Your task to perform on an android device: delete location history Image 0: 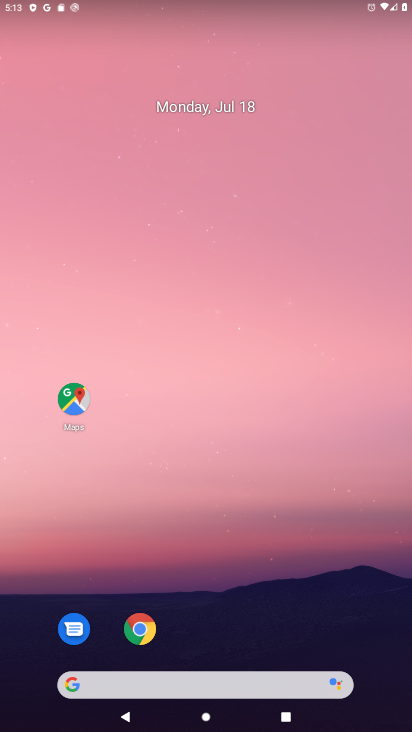
Step 0: drag from (288, 605) to (277, 54)
Your task to perform on an android device: delete location history Image 1: 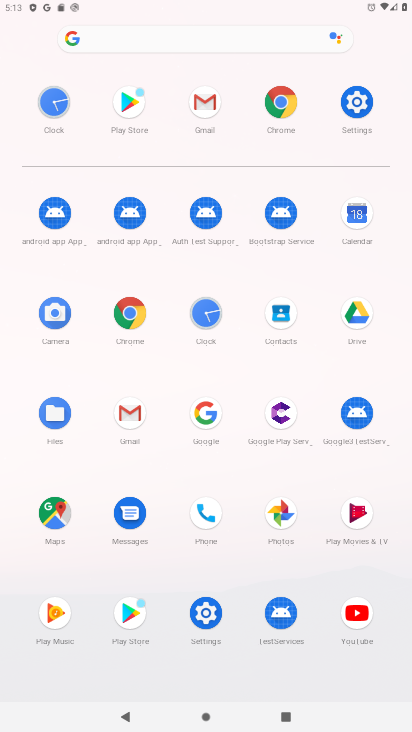
Step 1: click (347, 97)
Your task to perform on an android device: delete location history Image 2: 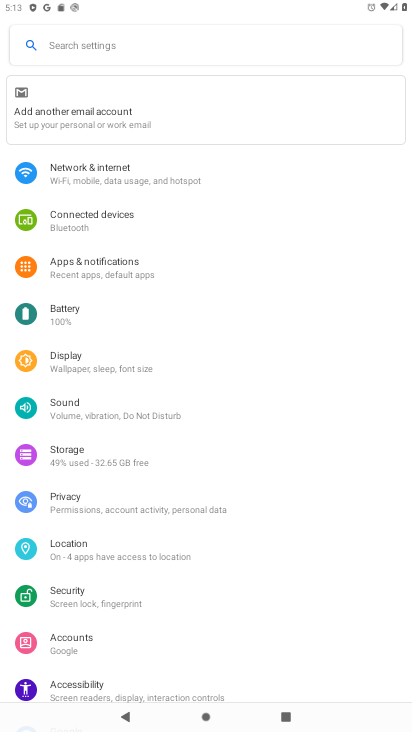
Step 2: press home button
Your task to perform on an android device: delete location history Image 3: 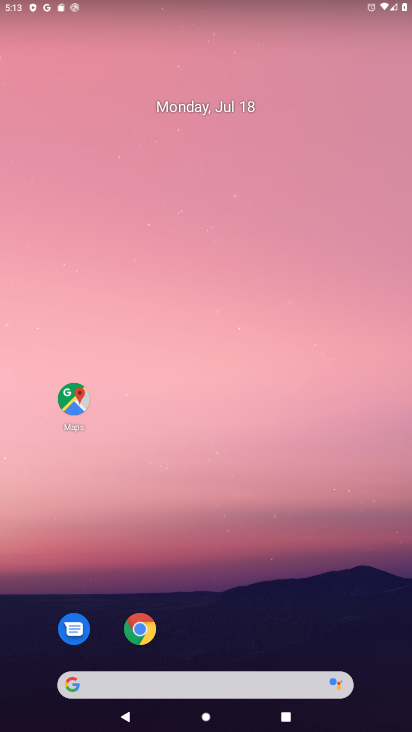
Step 3: click (73, 396)
Your task to perform on an android device: delete location history Image 4: 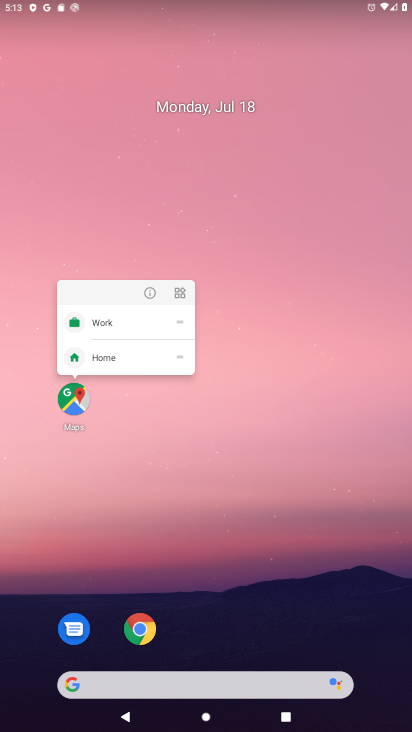
Step 4: click (66, 408)
Your task to perform on an android device: delete location history Image 5: 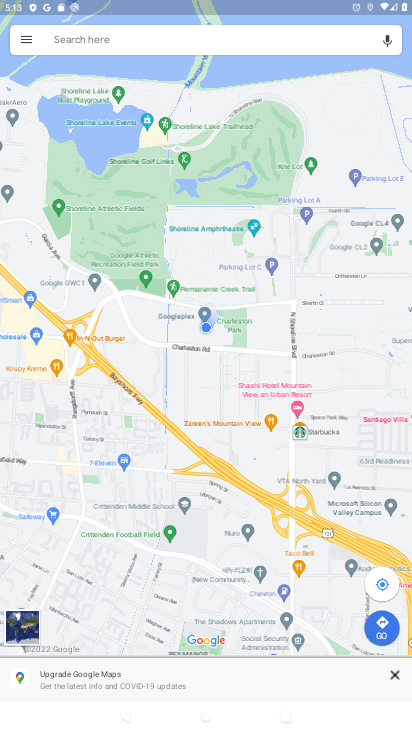
Step 5: click (20, 39)
Your task to perform on an android device: delete location history Image 6: 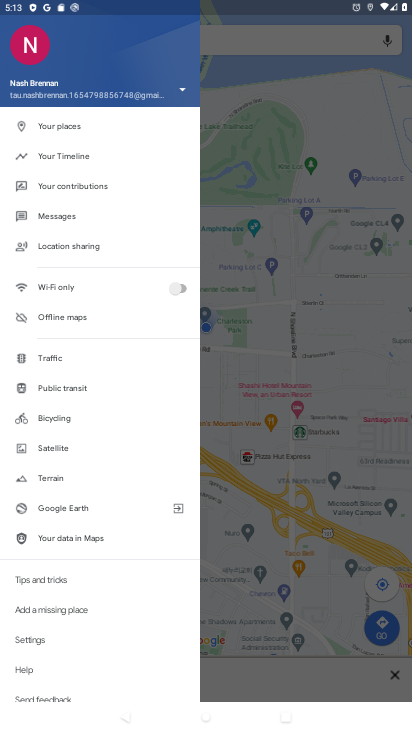
Step 6: click (44, 642)
Your task to perform on an android device: delete location history Image 7: 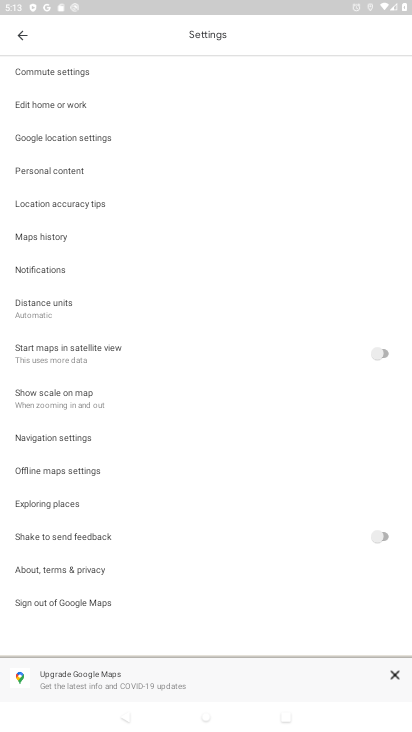
Step 7: click (42, 236)
Your task to perform on an android device: delete location history Image 8: 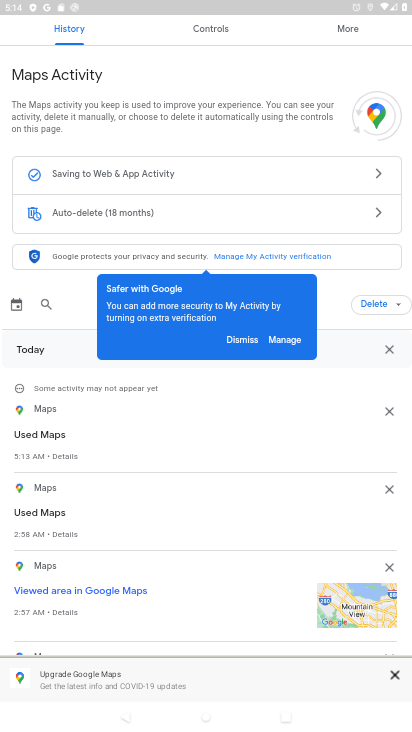
Step 8: click (395, 300)
Your task to perform on an android device: delete location history Image 9: 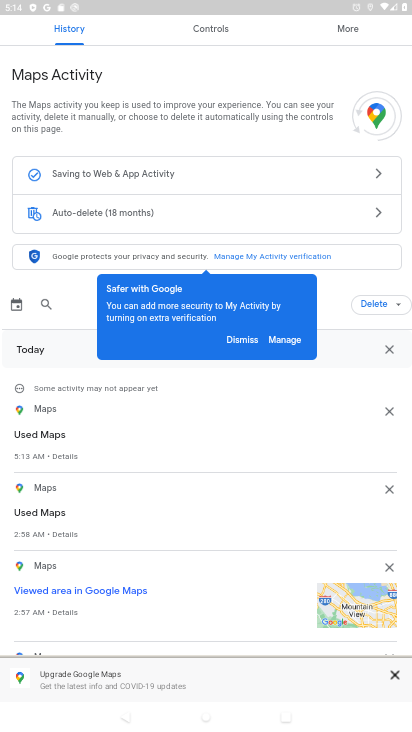
Step 9: click (400, 300)
Your task to perform on an android device: delete location history Image 10: 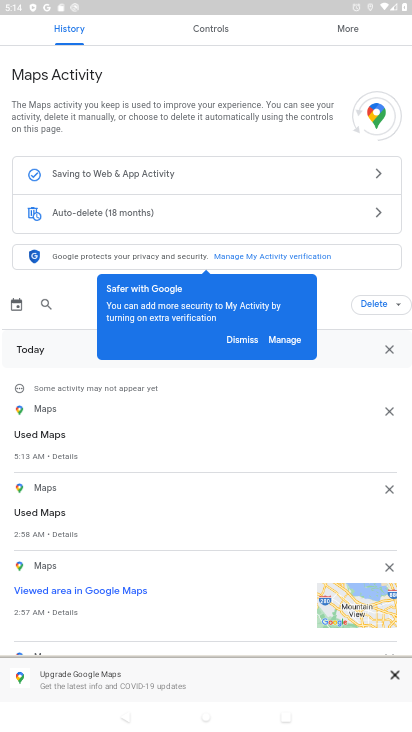
Step 10: click (245, 339)
Your task to perform on an android device: delete location history Image 11: 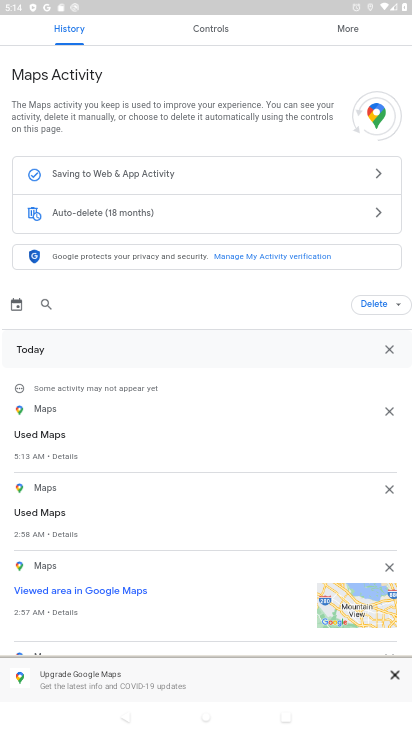
Step 11: click (401, 302)
Your task to perform on an android device: delete location history Image 12: 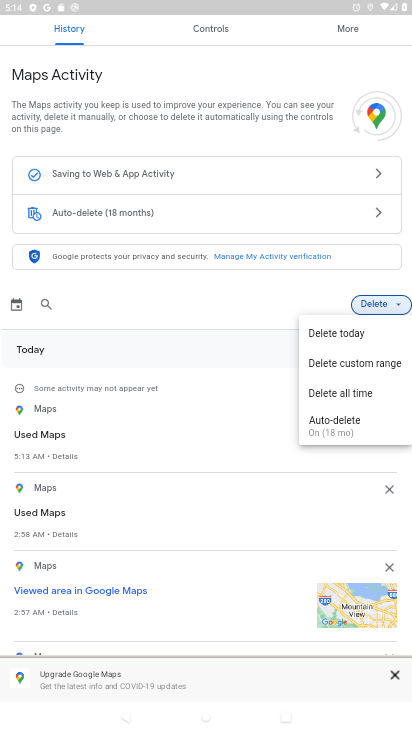
Step 12: click (348, 400)
Your task to perform on an android device: delete location history Image 13: 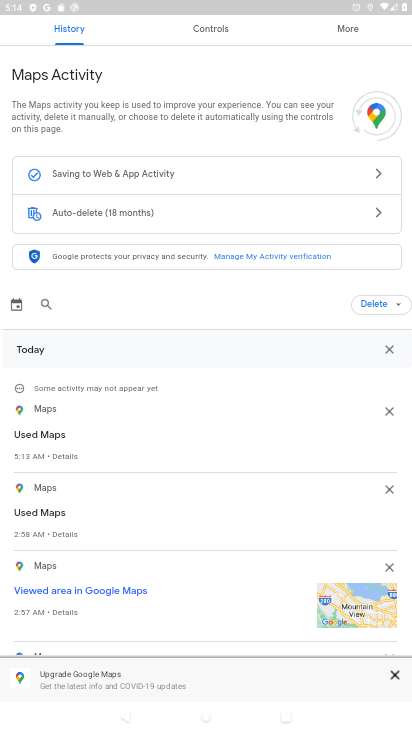
Step 13: click (385, 303)
Your task to perform on an android device: delete location history Image 14: 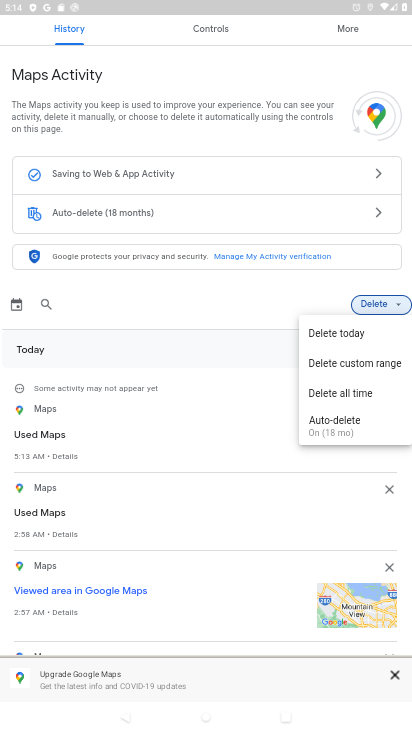
Step 14: click (335, 392)
Your task to perform on an android device: delete location history Image 15: 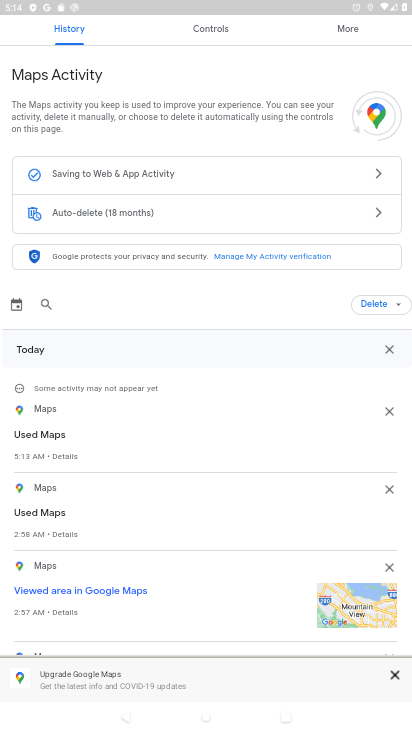
Step 15: click (393, 301)
Your task to perform on an android device: delete location history Image 16: 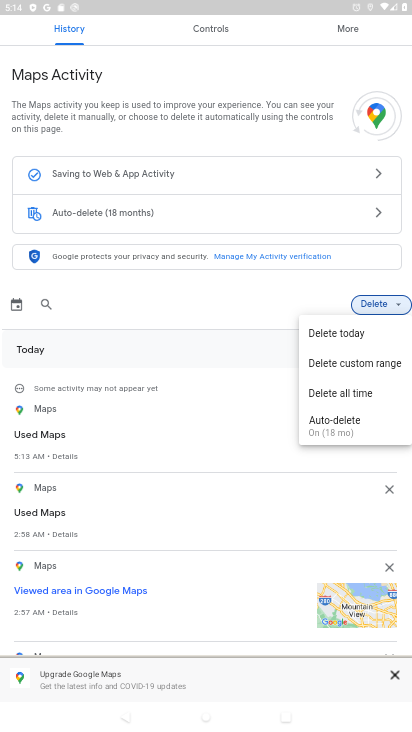
Step 16: click (326, 401)
Your task to perform on an android device: delete location history Image 17: 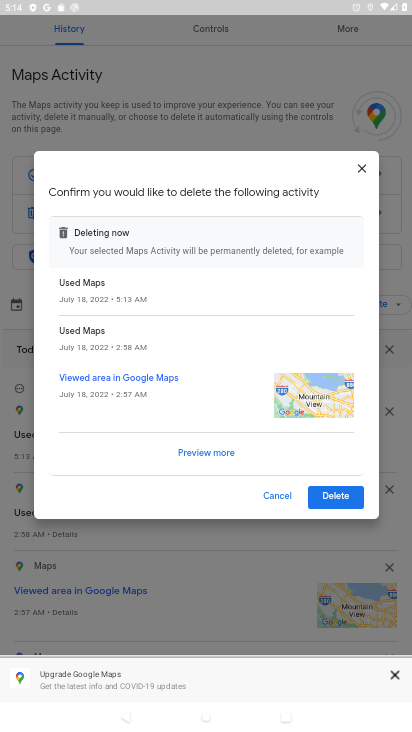
Step 17: click (335, 491)
Your task to perform on an android device: delete location history Image 18: 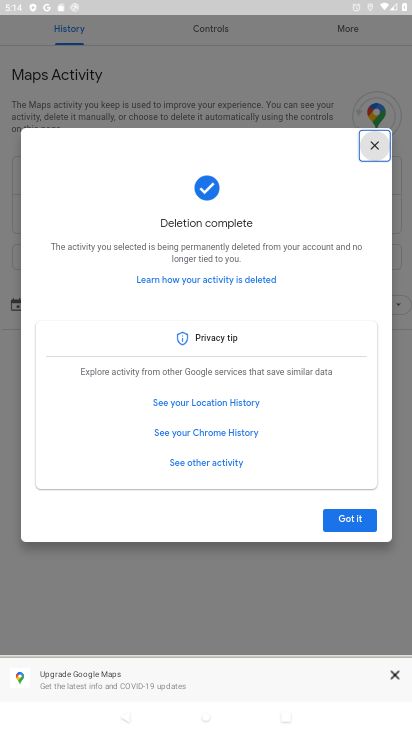
Step 18: click (342, 529)
Your task to perform on an android device: delete location history Image 19: 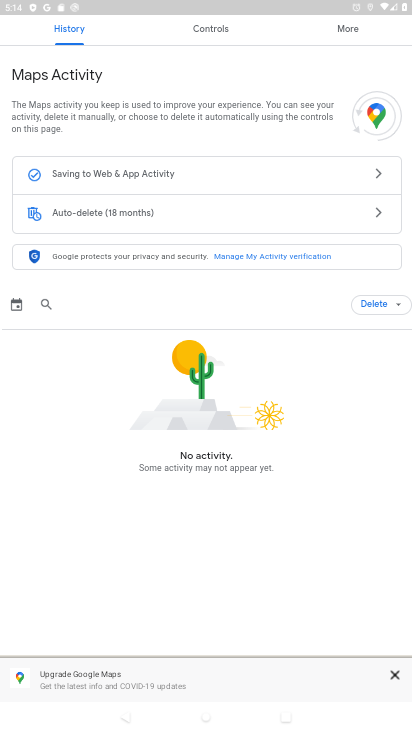
Step 19: task complete